Your task to perform on an android device: turn on priority inbox in the gmail app Image 0: 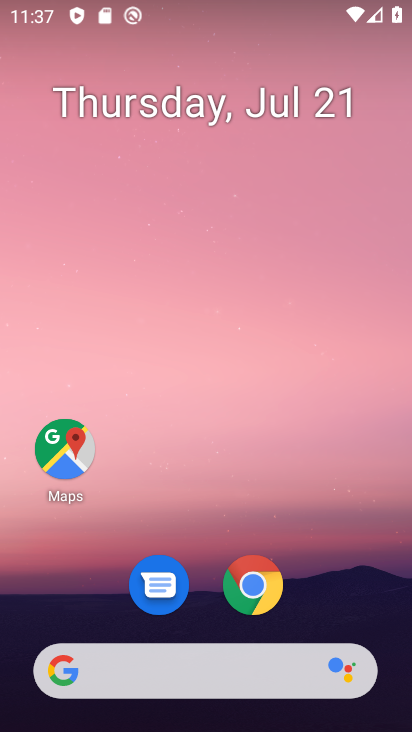
Step 0: drag from (196, 669) to (336, 138)
Your task to perform on an android device: turn on priority inbox in the gmail app Image 1: 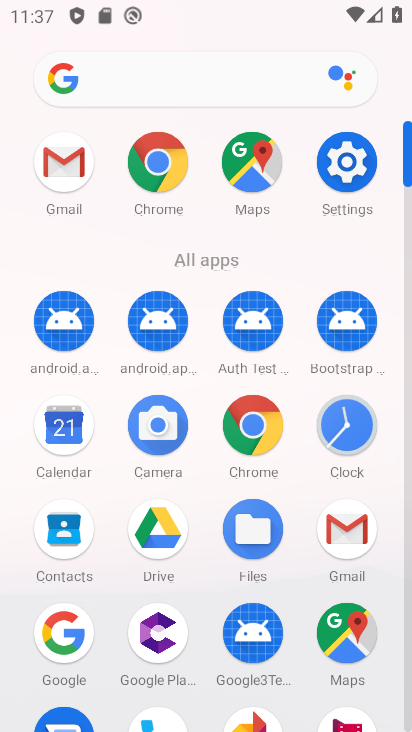
Step 1: click (55, 164)
Your task to perform on an android device: turn on priority inbox in the gmail app Image 2: 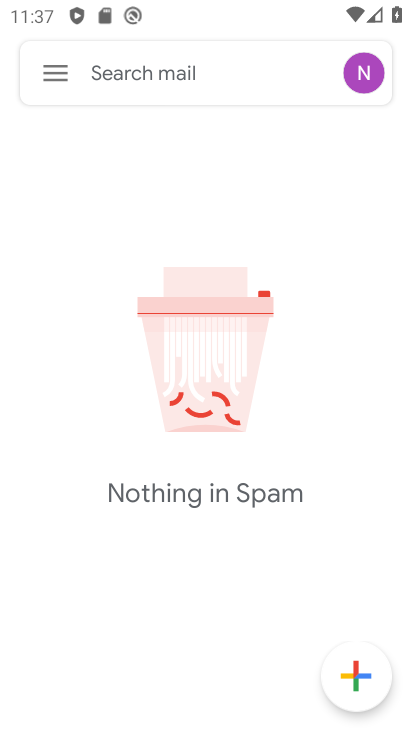
Step 2: click (58, 69)
Your task to perform on an android device: turn on priority inbox in the gmail app Image 3: 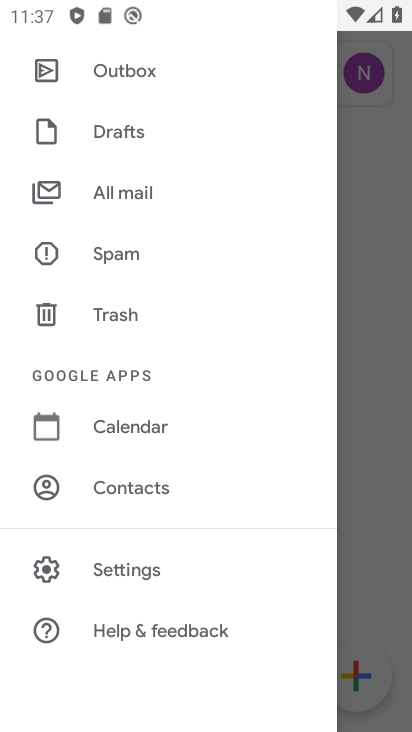
Step 3: click (152, 572)
Your task to perform on an android device: turn on priority inbox in the gmail app Image 4: 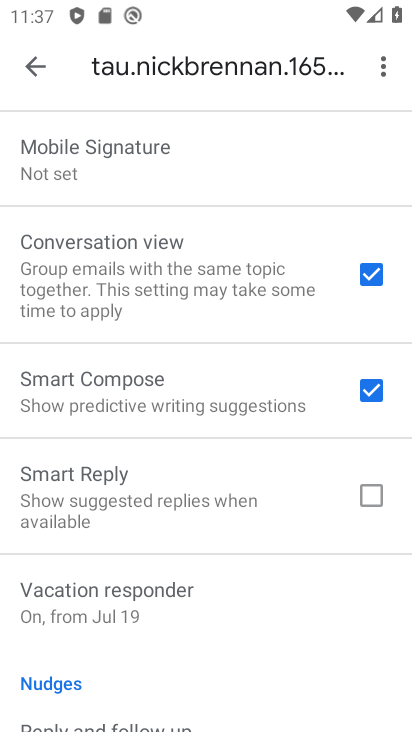
Step 4: drag from (294, 169) to (213, 605)
Your task to perform on an android device: turn on priority inbox in the gmail app Image 5: 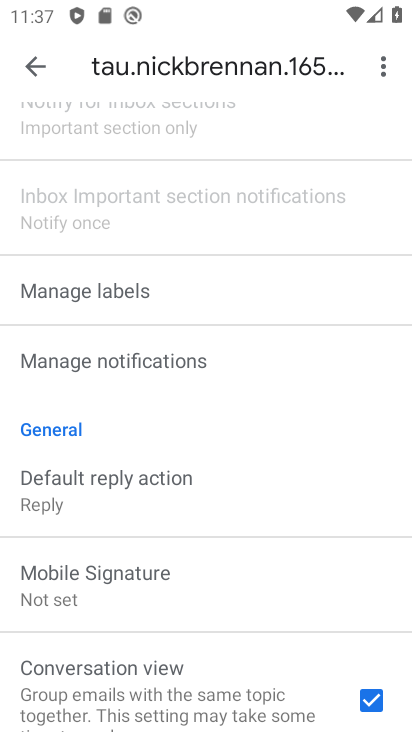
Step 5: drag from (305, 273) to (221, 639)
Your task to perform on an android device: turn on priority inbox in the gmail app Image 6: 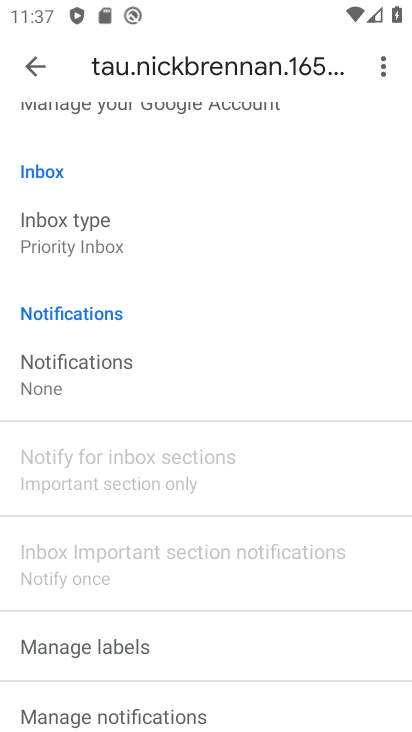
Step 6: click (82, 237)
Your task to perform on an android device: turn on priority inbox in the gmail app Image 7: 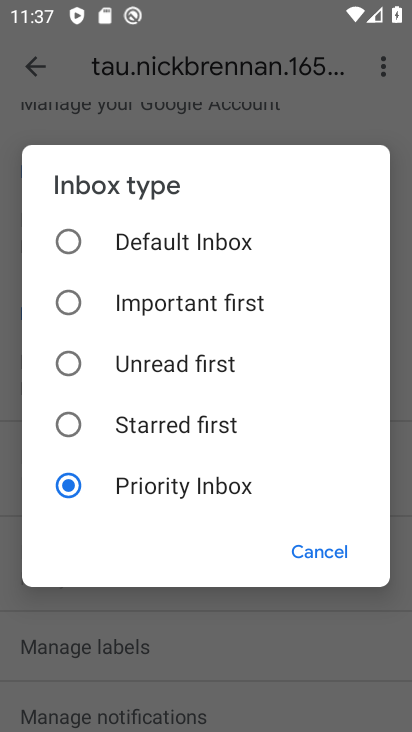
Step 7: task complete